Your task to perform on an android device: Open Google Maps and go to "Timeline" Image 0: 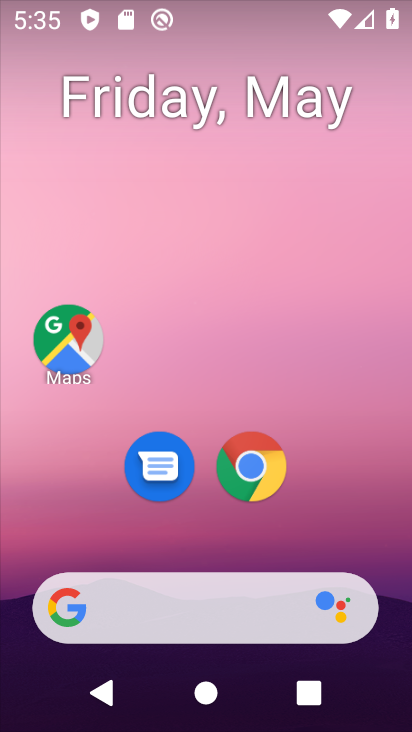
Step 0: drag from (364, 525) to (285, 56)
Your task to perform on an android device: Open Google Maps and go to "Timeline" Image 1: 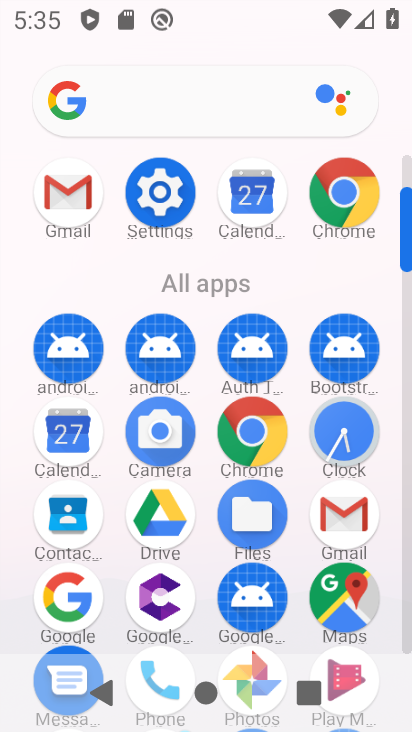
Step 1: drag from (19, 531) to (12, 222)
Your task to perform on an android device: Open Google Maps and go to "Timeline" Image 2: 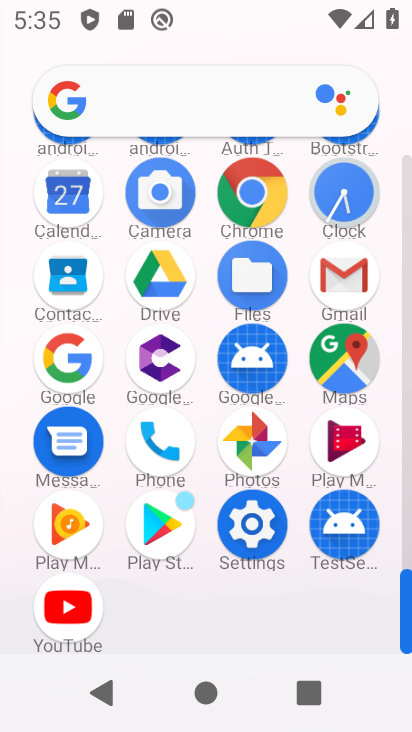
Step 2: click (340, 358)
Your task to perform on an android device: Open Google Maps and go to "Timeline" Image 3: 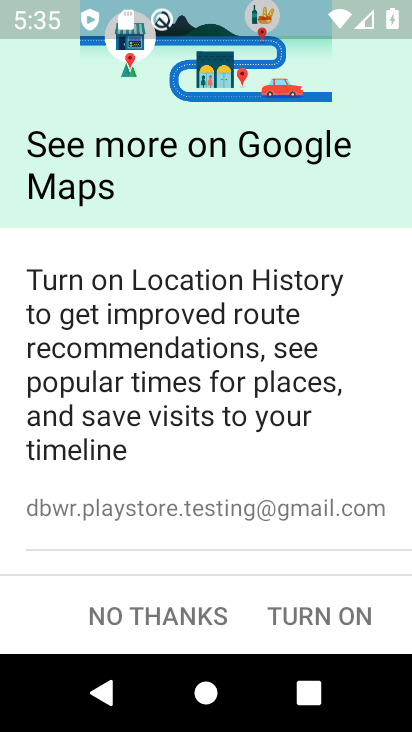
Step 3: click (289, 619)
Your task to perform on an android device: Open Google Maps and go to "Timeline" Image 4: 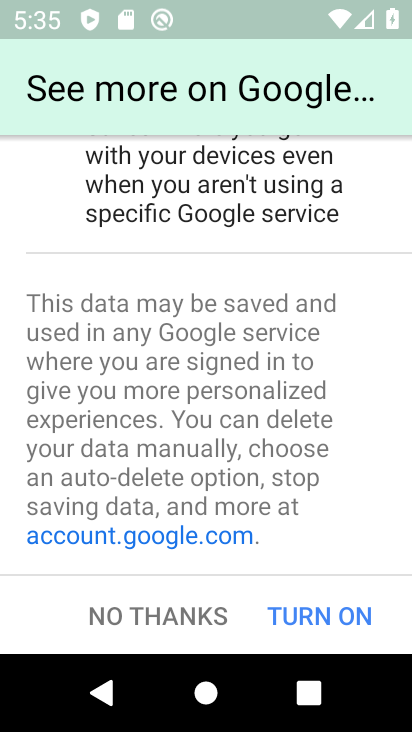
Step 4: click (289, 619)
Your task to perform on an android device: Open Google Maps and go to "Timeline" Image 5: 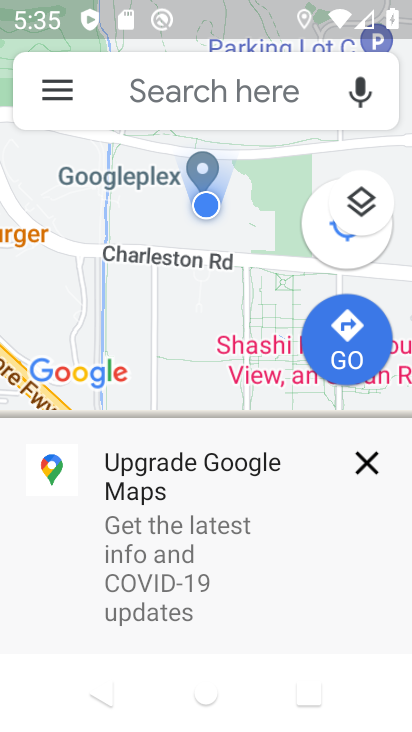
Step 5: click (364, 454)
Your task to perform on an android device: Open Google Maps and go to "Timeline" Image 6: 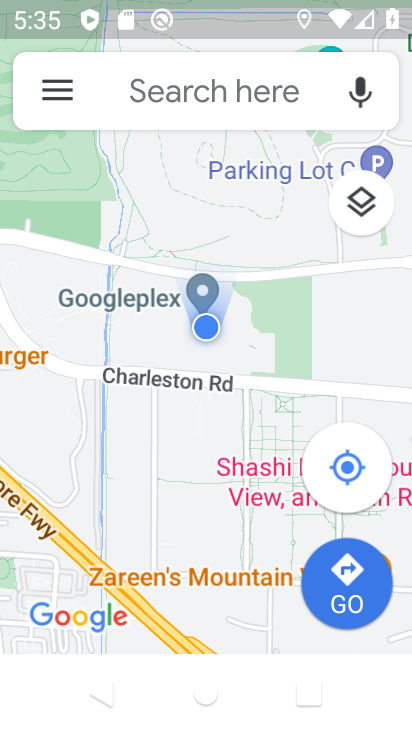
Step 6: click (37, 69)
Your task to perform on an android device: Open Google Maps and go to "Timeline" Image 7: 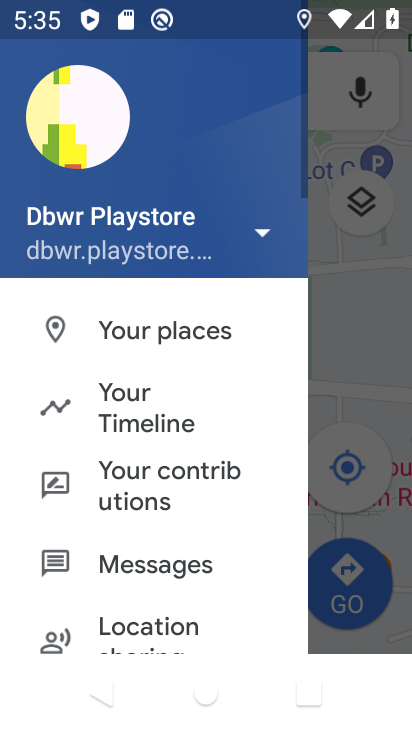
Step 7: click (152, 417)
Your task to perform on an android device: Open Google Maps and go to "Timeline" Image 8: 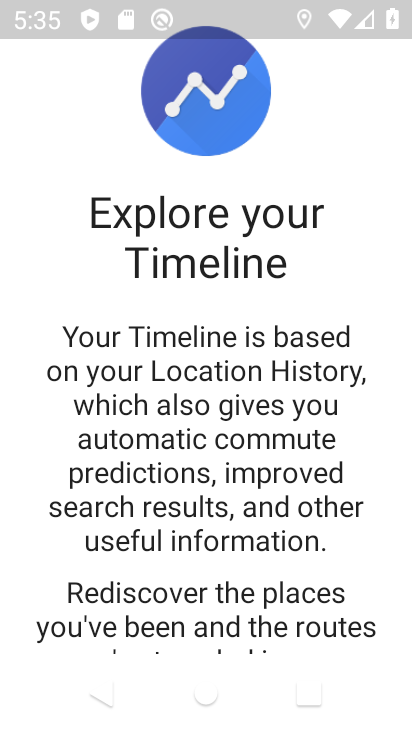
Step 8: drag from (186, 487) to (201, 198)
Your task to perform on an android device: Open Google Maps and go to "Timeline" Image 9: 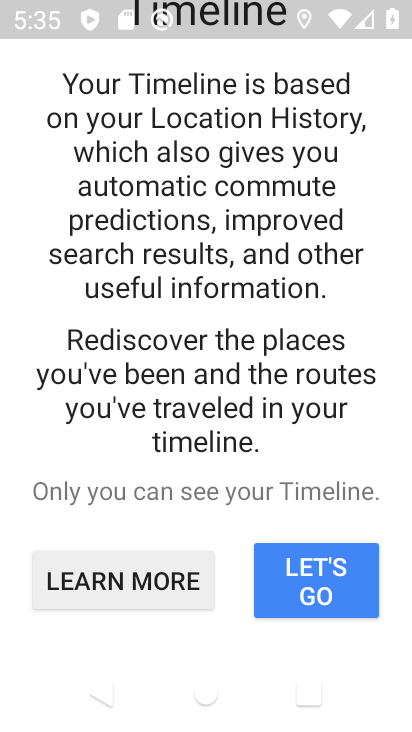
Step 9: click (292, 580)
Your task to perform on an android device: Open Google Maps and go to "Timeline" Image 10: 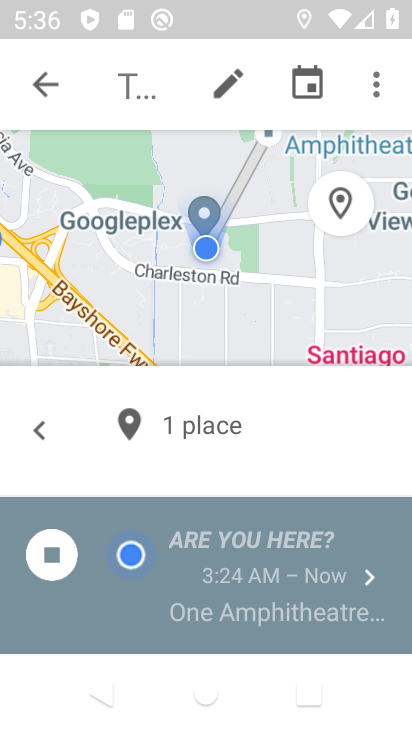
Step 10: task complete